Your task to perform on an android device: Open Yahoo.com Image 0: 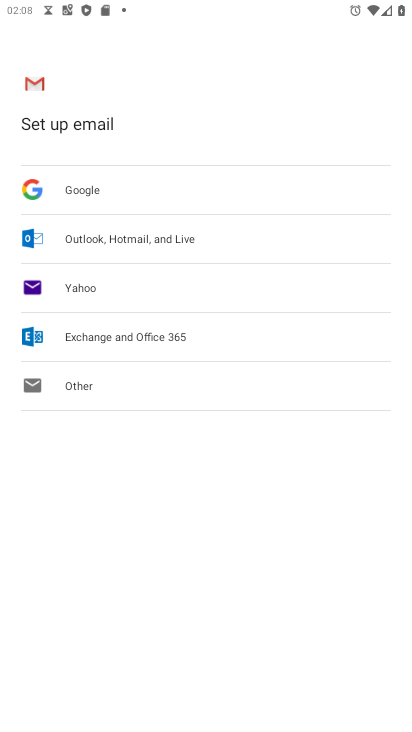
Step 0: press home button
Your task to perform on an android device: Open Yahoo.com Image 1: 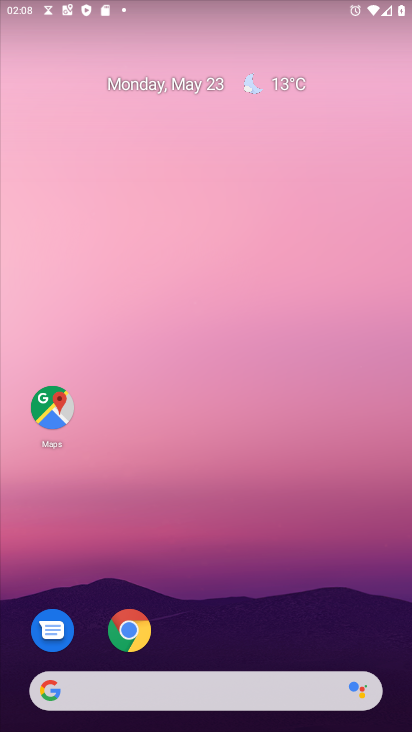
Step 1: drag from (280, 475) to (160, 15)
Your task to perform on an android device: Open Yahoo.com Image 2: 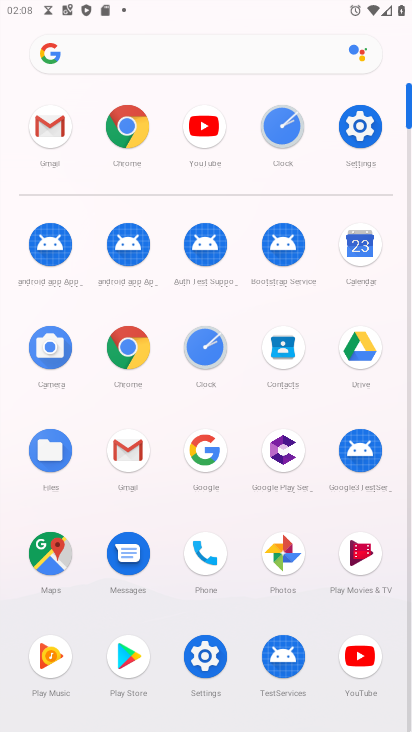
Step 2: click (120, 132)
Your task to perform on an android device: Open Yahoo.com Image 3: 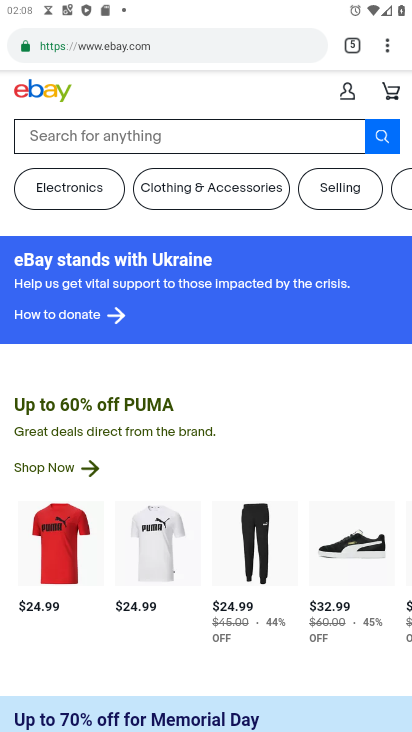
Step 3: click (359, 42)
Your task to perform on an android device: Open Yahoo.com Image 4: 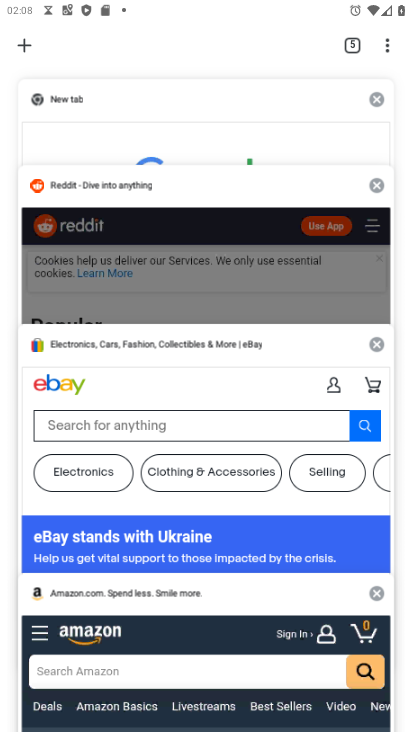
Step 4: click (22, 48)
Your task to perform on an android device: Open Yahoo.com Image 5: 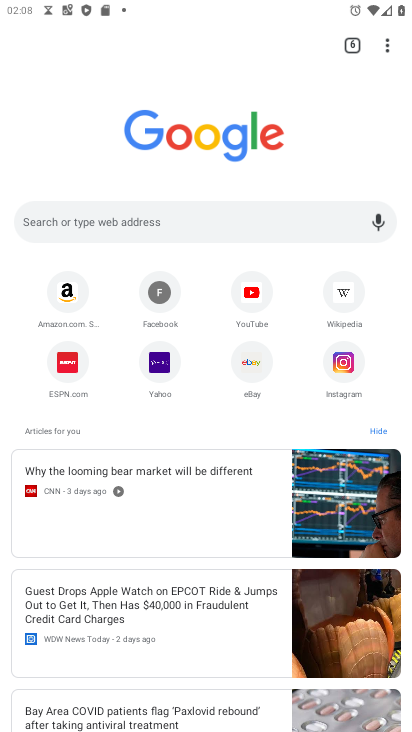
Step 5: click (164, 358)
Your task to perform on an android device: Open Yahoo.com Image 6: 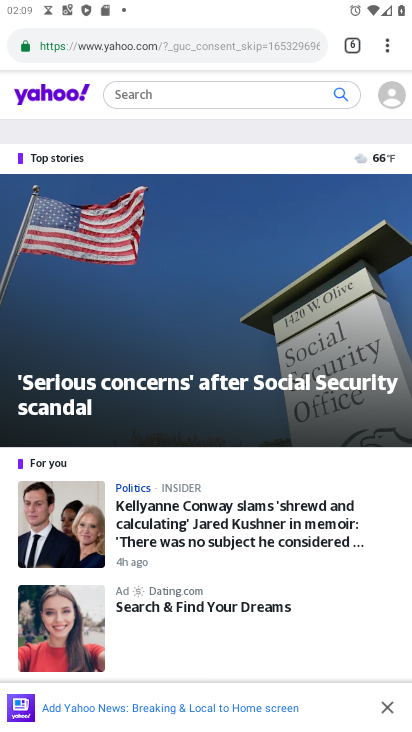
Step 6: task complete